Your task to perform on an android device: Open settings on Google Maps Image 0: 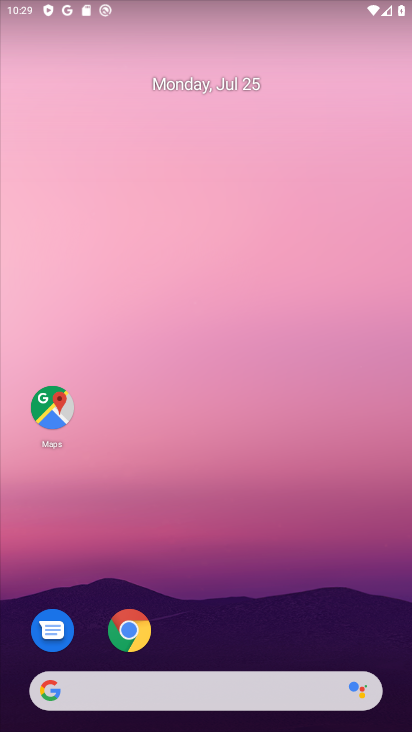
Step 0: drag from (277, 631) to (243, 185)
Your task to perform on an android device: Open settings on Google Maps Image 1: 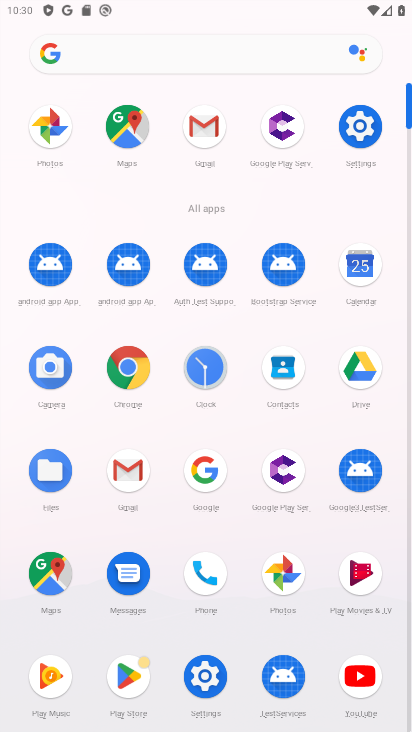
Step 1: click (130, 123)
Your task to perform on an android device: Open settings on Google Maps Image 2: 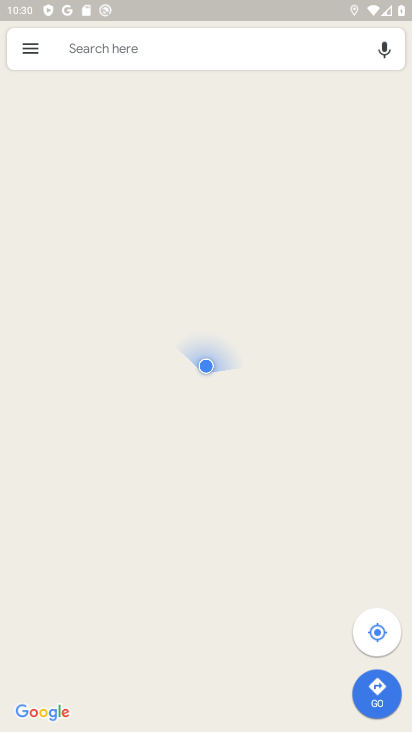
Step 2: click (29, 49)
Your task to perform on an android device: Open settings on Google Maps Image 3: 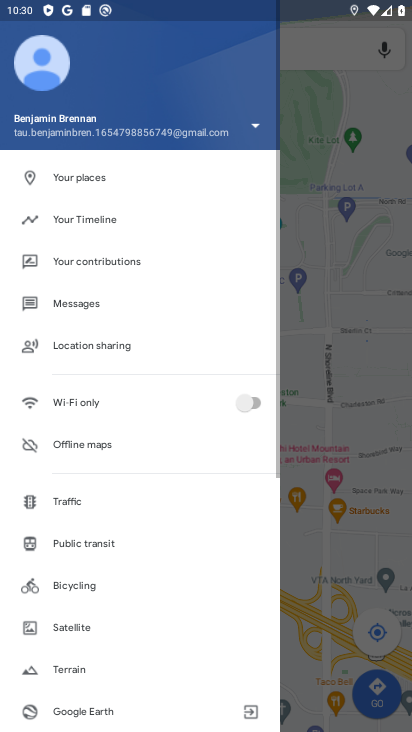
Step 3: drag from (133, 650) to (135, 169)
Your task to perform on an android device: Open settings on Google Maps Image 4: 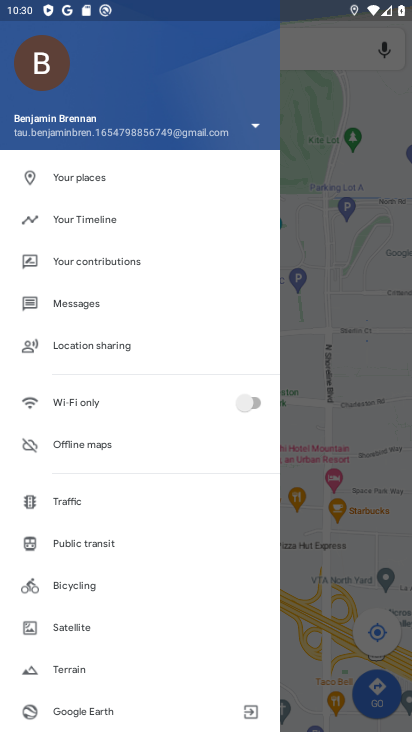
Step 4: drag from (101, 604) to (127, 150)
Your task to perform on an android device: Open settings on Google Maps Image 5: 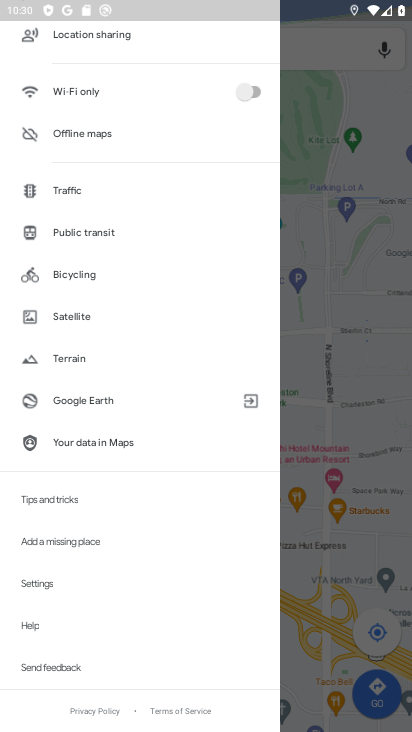
Step 5: click (68, 582)
Your task to perform on an android device: Open settings on Google Maps Image 6: 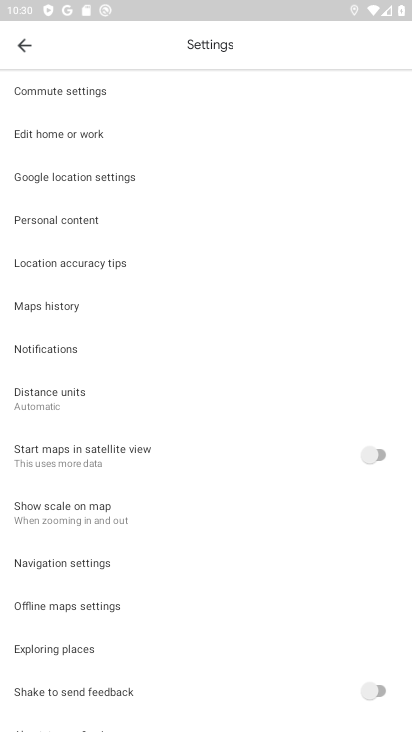
Step 6: task complete